Your task to perform on an android device: Clear the shopping cart on costco.com. Add "jbl flip 4" to the cart on costco.com, then select checkout. Image 0: 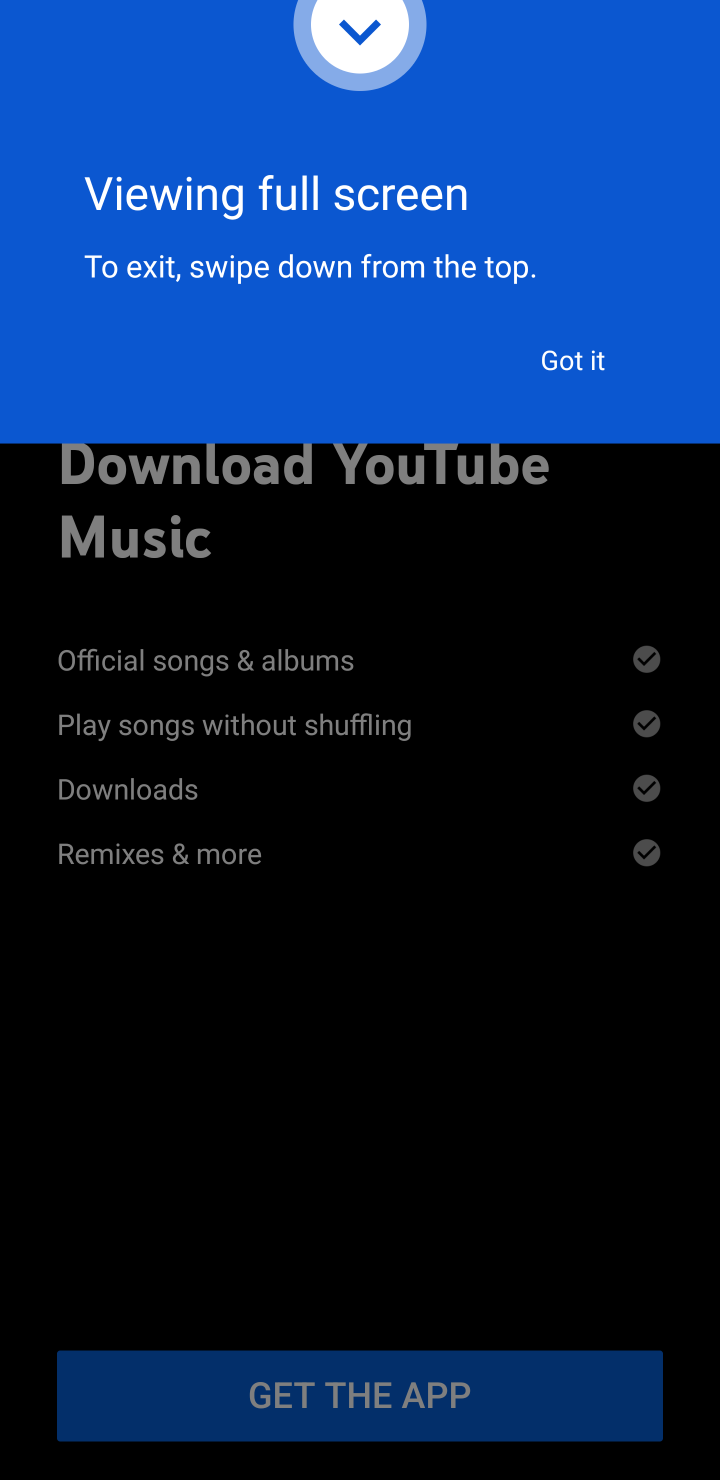
Step 0: click (592, 364)
Your task to perform on an android device: Clear the shopping cart on costco.com. Add "jbl flip 4" to the cart on costco.com, then select checkout. Image 1: 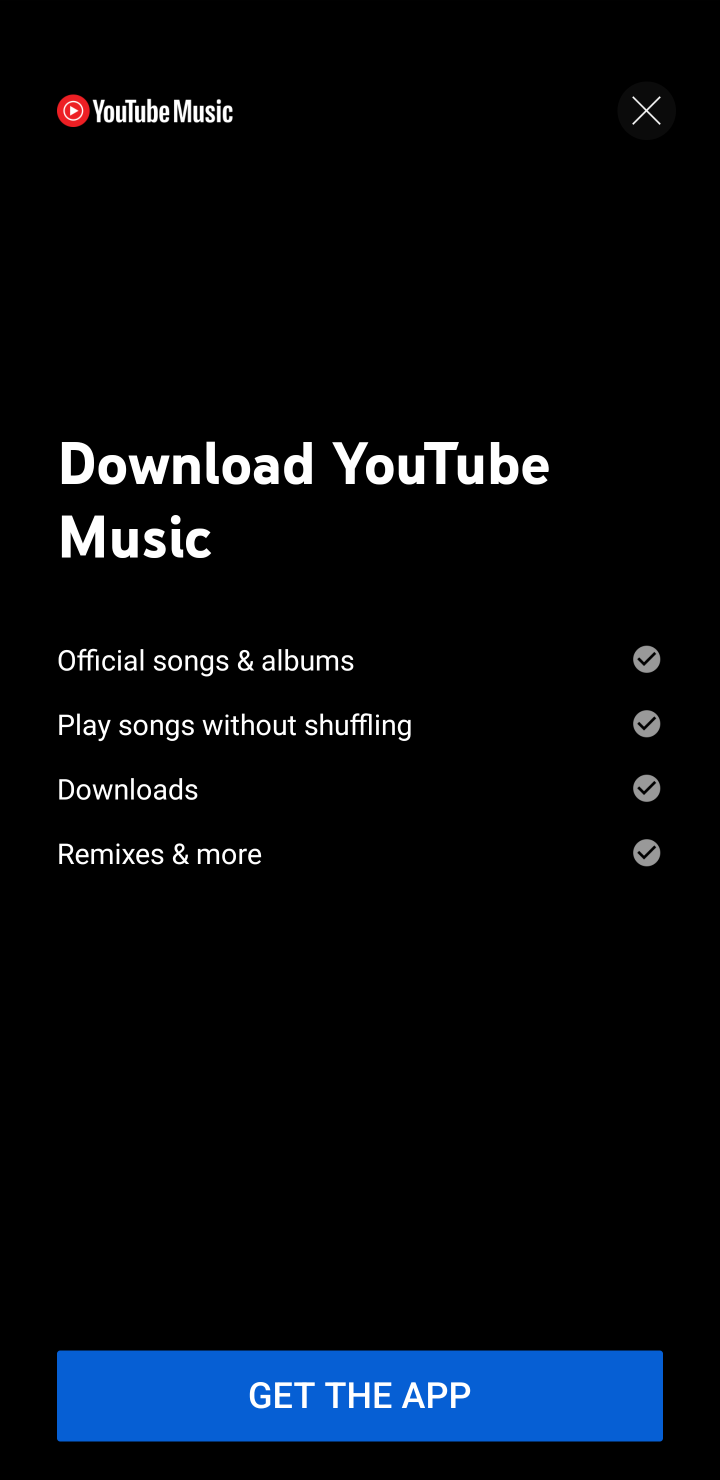
Step 1: press home button
Your task to perform on an android device: Clear the shopping cart on costco.com. Add "jbl flip 4" to the cart on costco.com, then select checkout. Image 2: 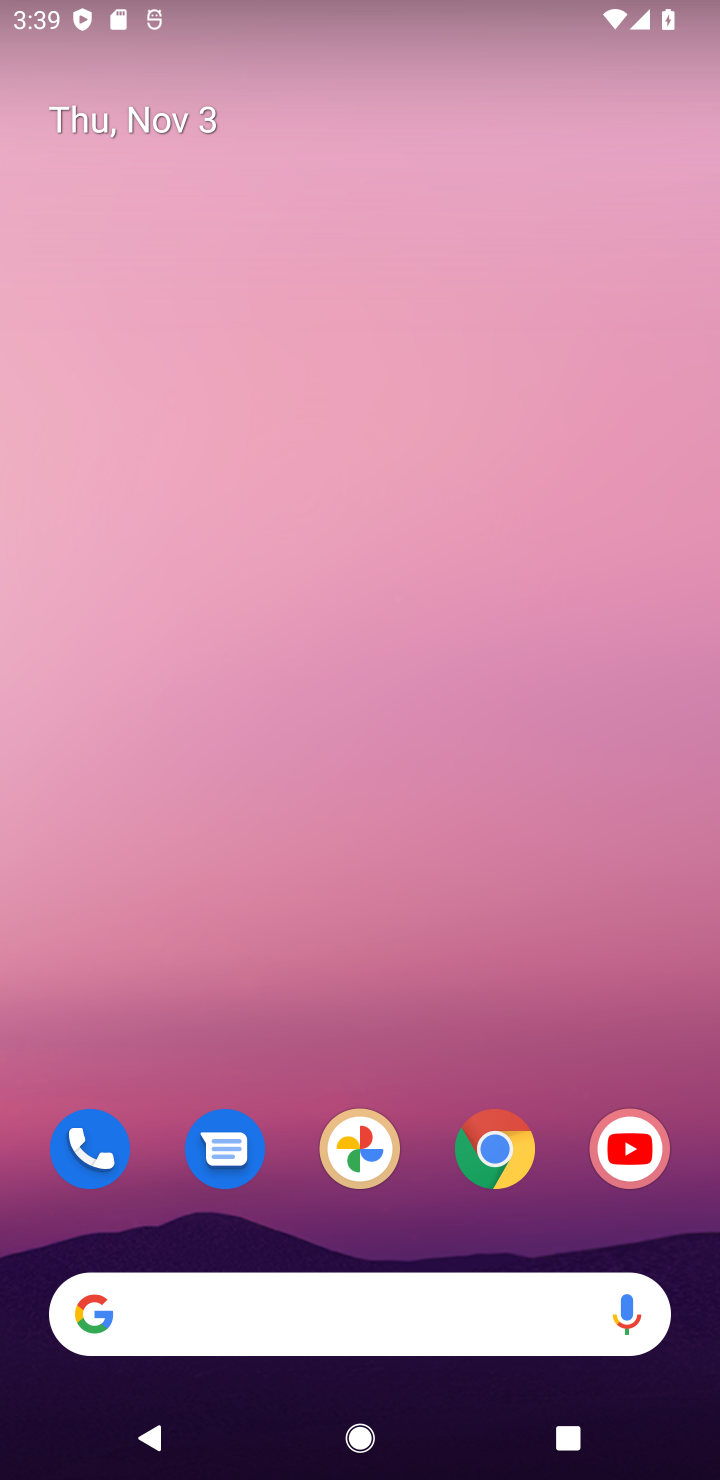
Step 2: click (511, 1143)
Your task to perform on an android device: Clear the shopping cart on costco.com. Add "jbl flip 4" to the cart on costco.com, then select checkout. Image 3: 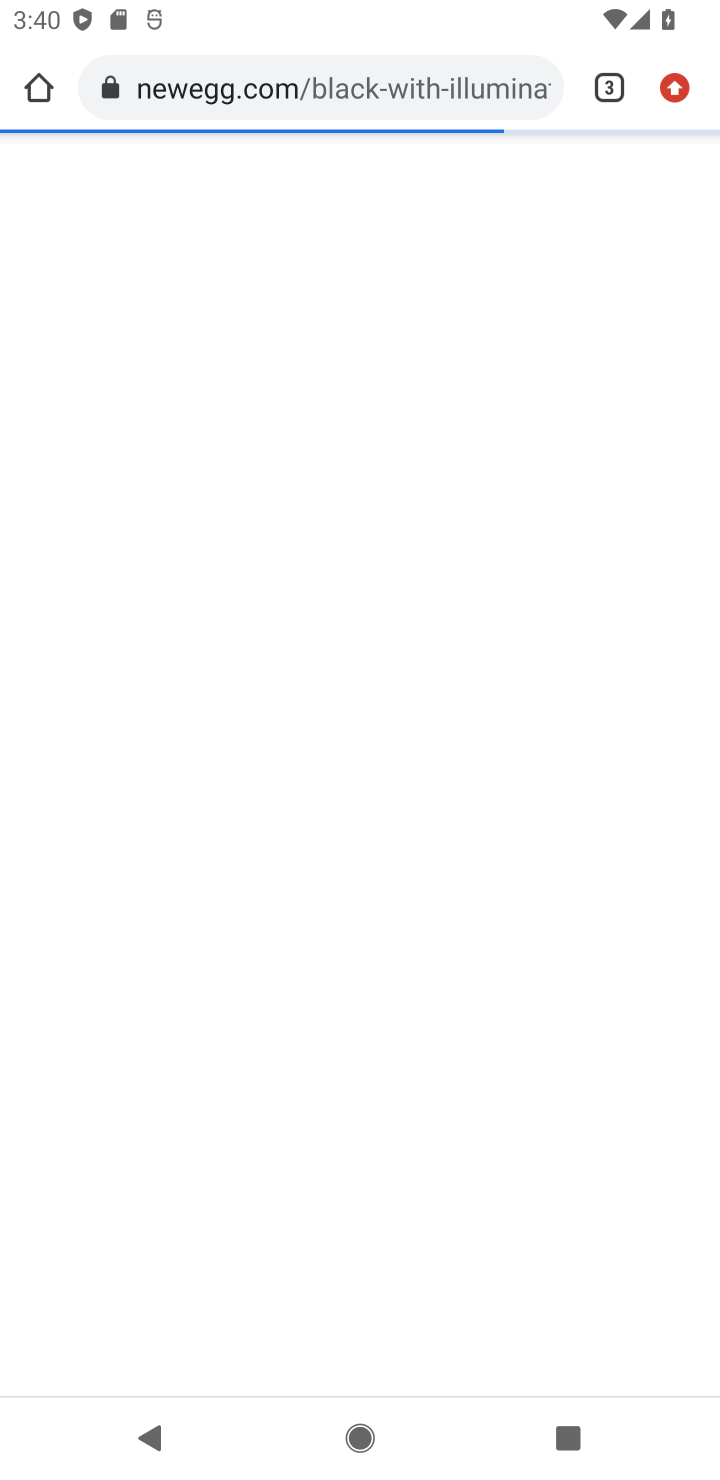
Step 3: click (599, 97)
Your task to perform on an android device: Clear the shopping cart on costco.com. Add "jbl flip 4" to the cart on costco.com, then select checkout. Image 4: 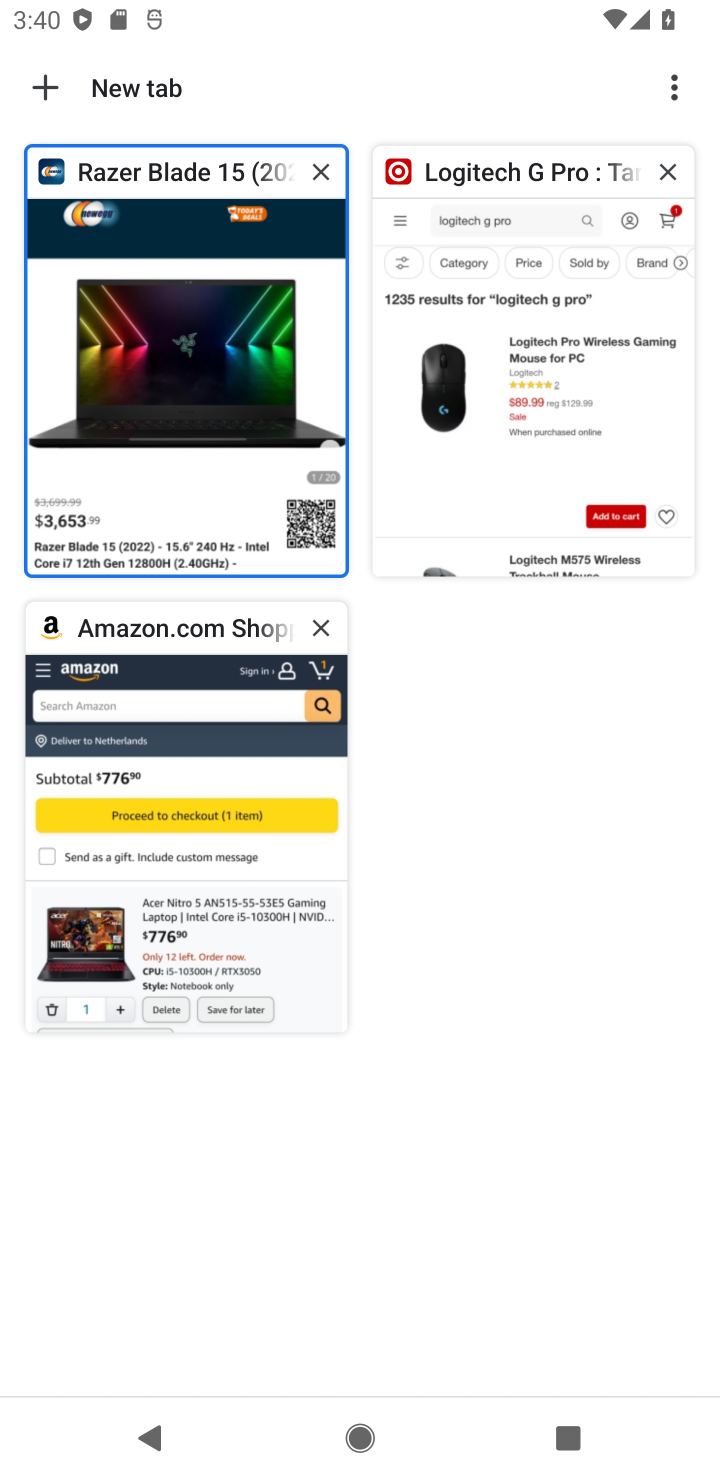
Step 4: click (36, 95)
Your task to perform on an android device: Clear the shopping cart on costco.com. Add "jbl flip 4" to the cart on costco.com, then select checkout. Image 5: 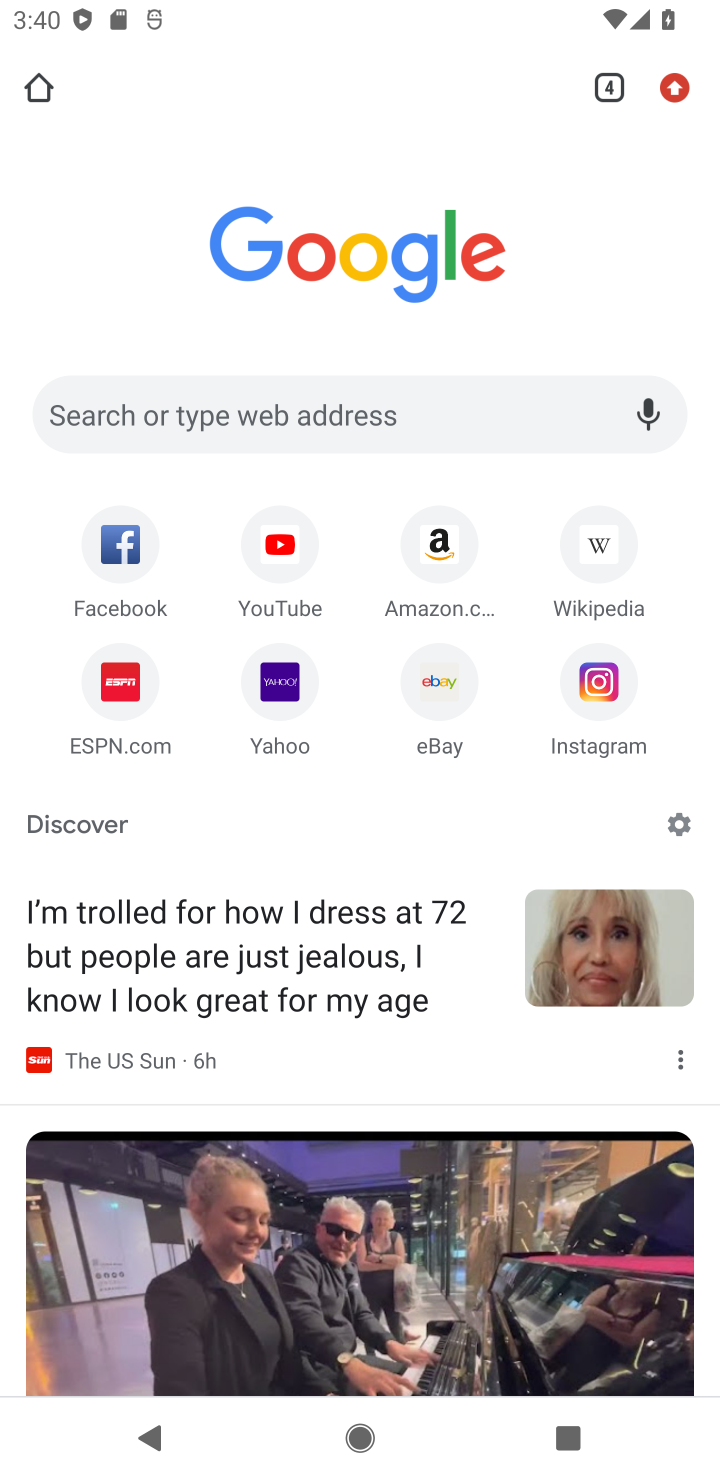
Step 5: click (271, 425)
Your task to perform on an android device: Clear the shopping cart on costco.com. Add "jbl flip 4" to the cart on costco.com, then select checkout. Image 6: 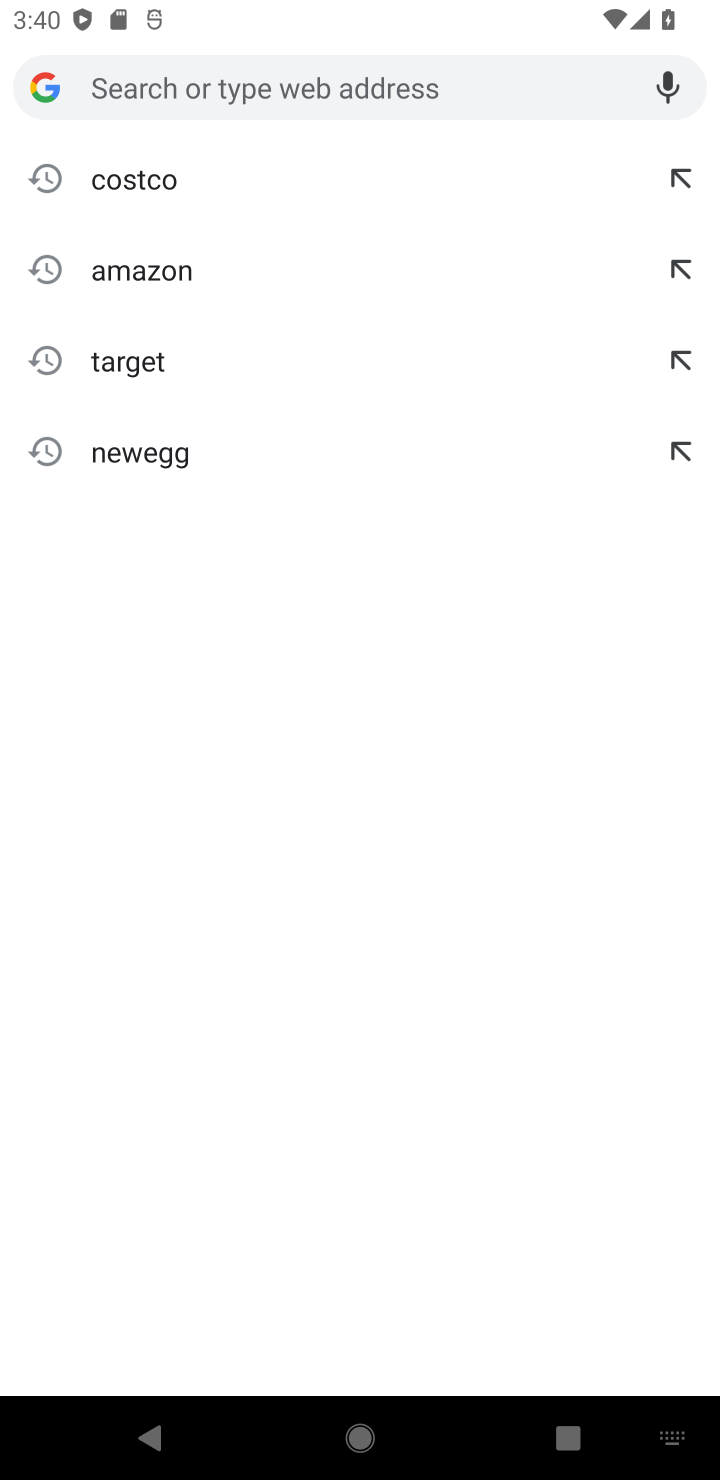
Step 6: type "costco"
Your task to perform on an android device: Clear the shopping cart on costco.com. Add "jbl flip 4" to the cart on costco.com, then select checkout. Image 7: 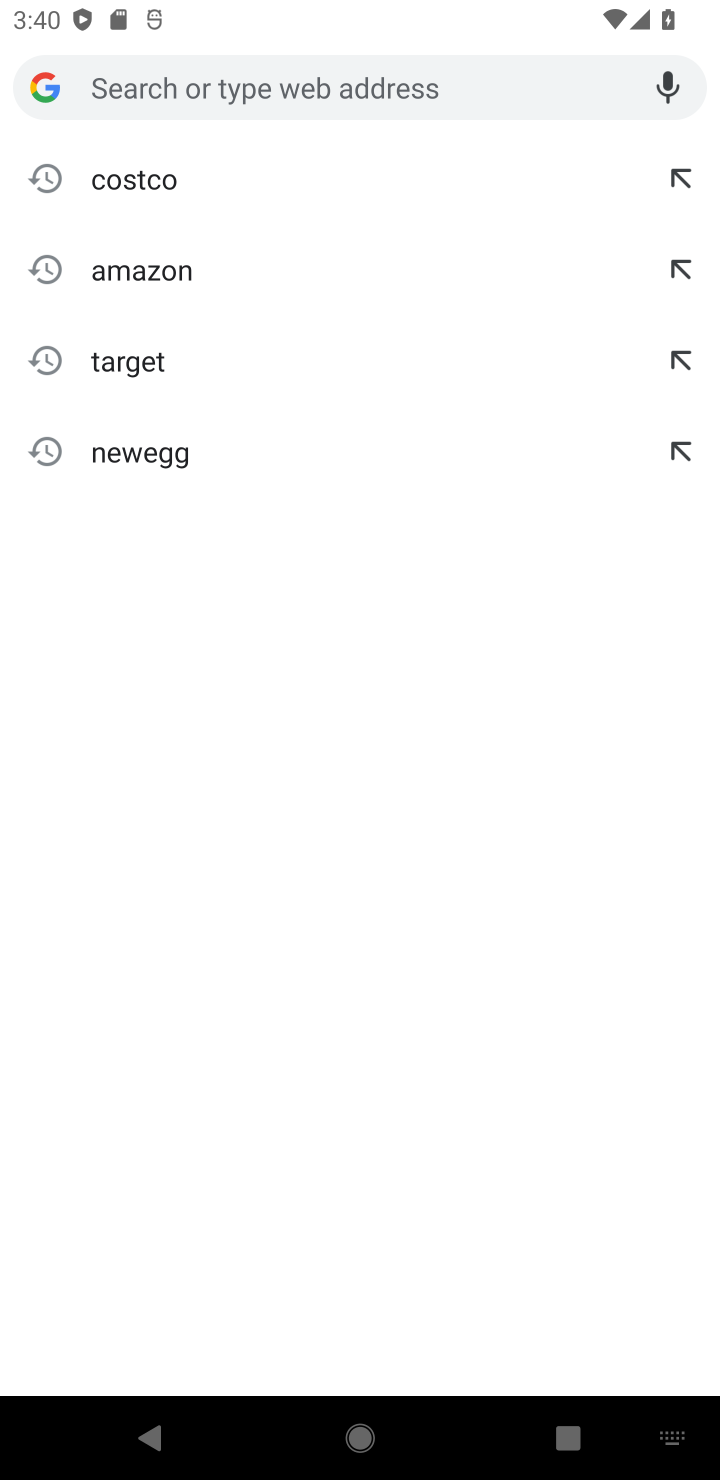
Step 7: click (166, 173)
Your task to perform on an android device: Clear the shopping cart on costco.com. Add "jbl flip 4" to the cart on costco.com, then select checkout. Image 8: 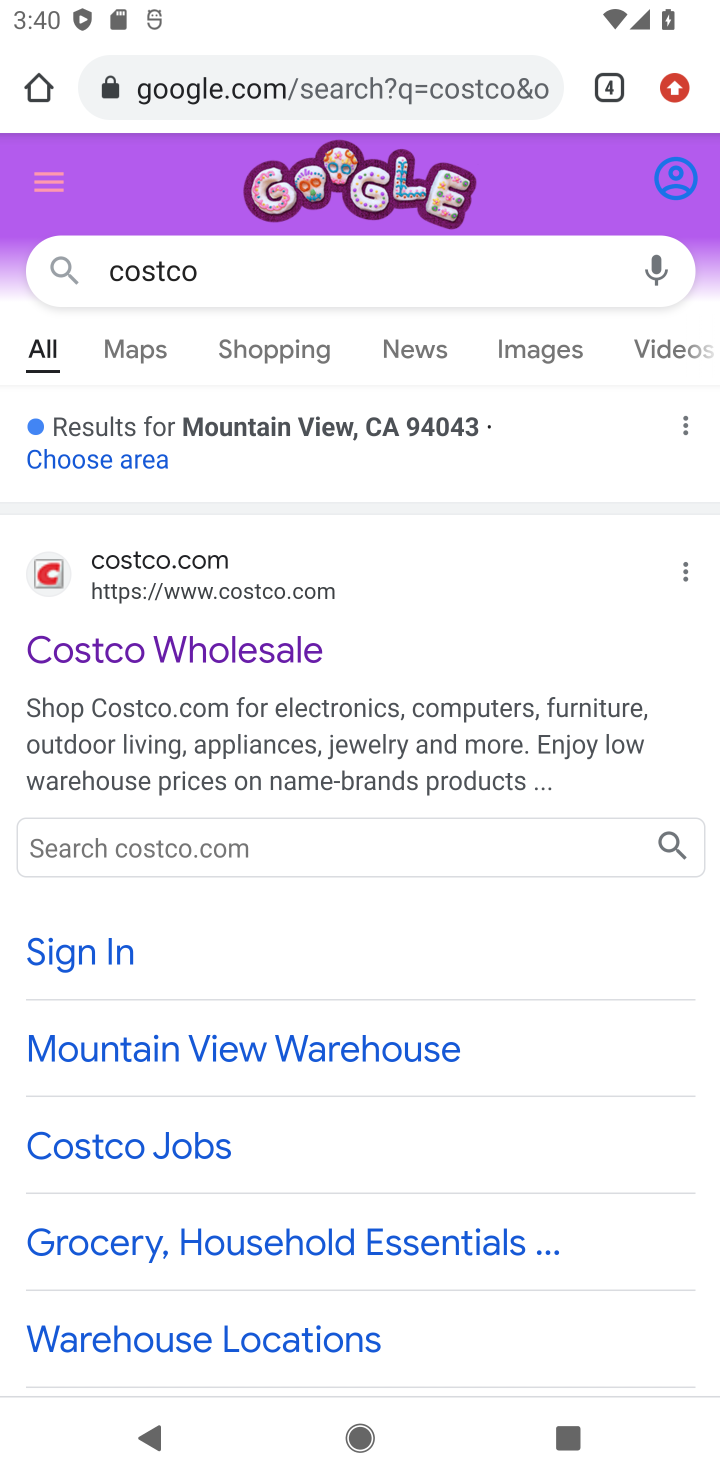
Step 8: drag from (277, 914) to (383, 420)
Your task to perform on an android device: Clear the shopping cart on costco.com. Add "jbl flip 4" to the cart on costco.com, then select checkout. Image 9: 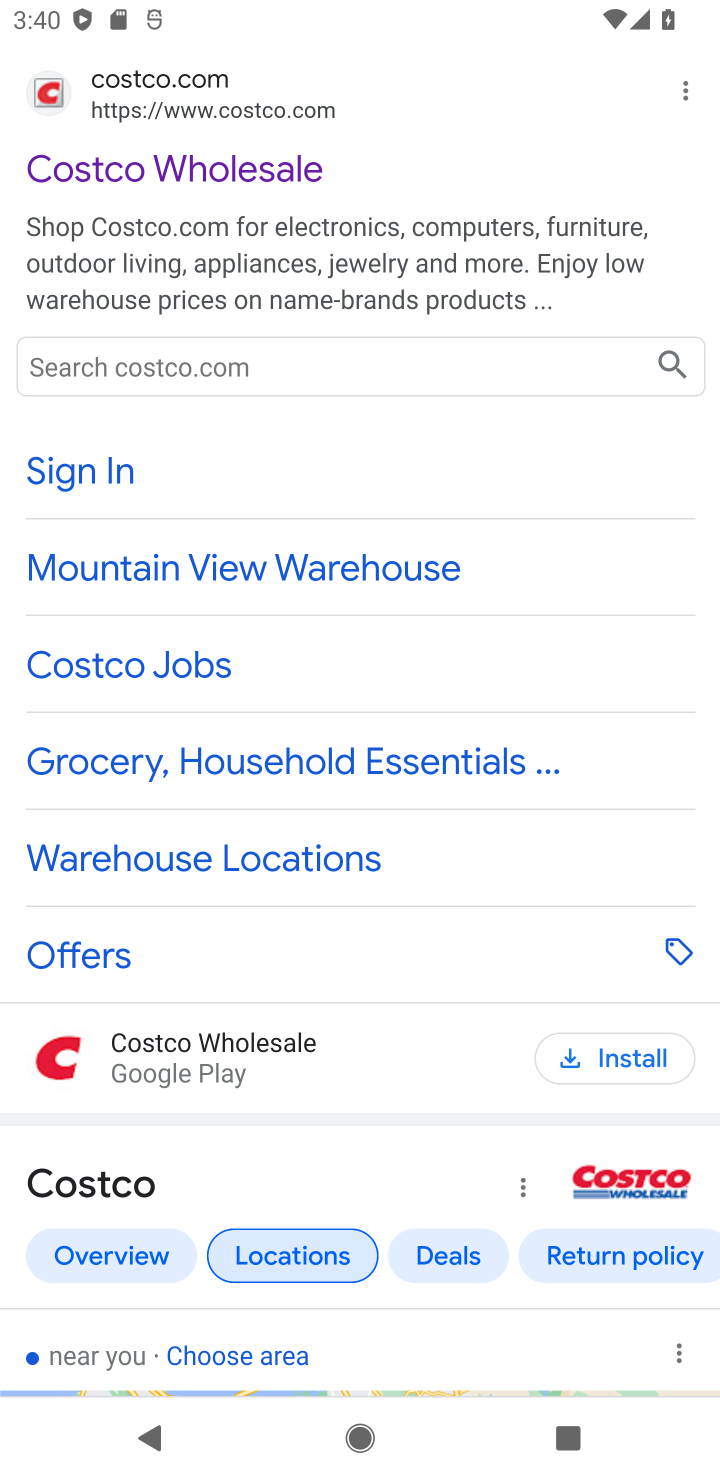
Step 9: drag from (316, 1178) to (468, 305)
Your task to perform on an android device: Clear the shopping cart on costco.com. Add "jbl flip 4" to the cart on costco.com, then select checkout. Image 10: 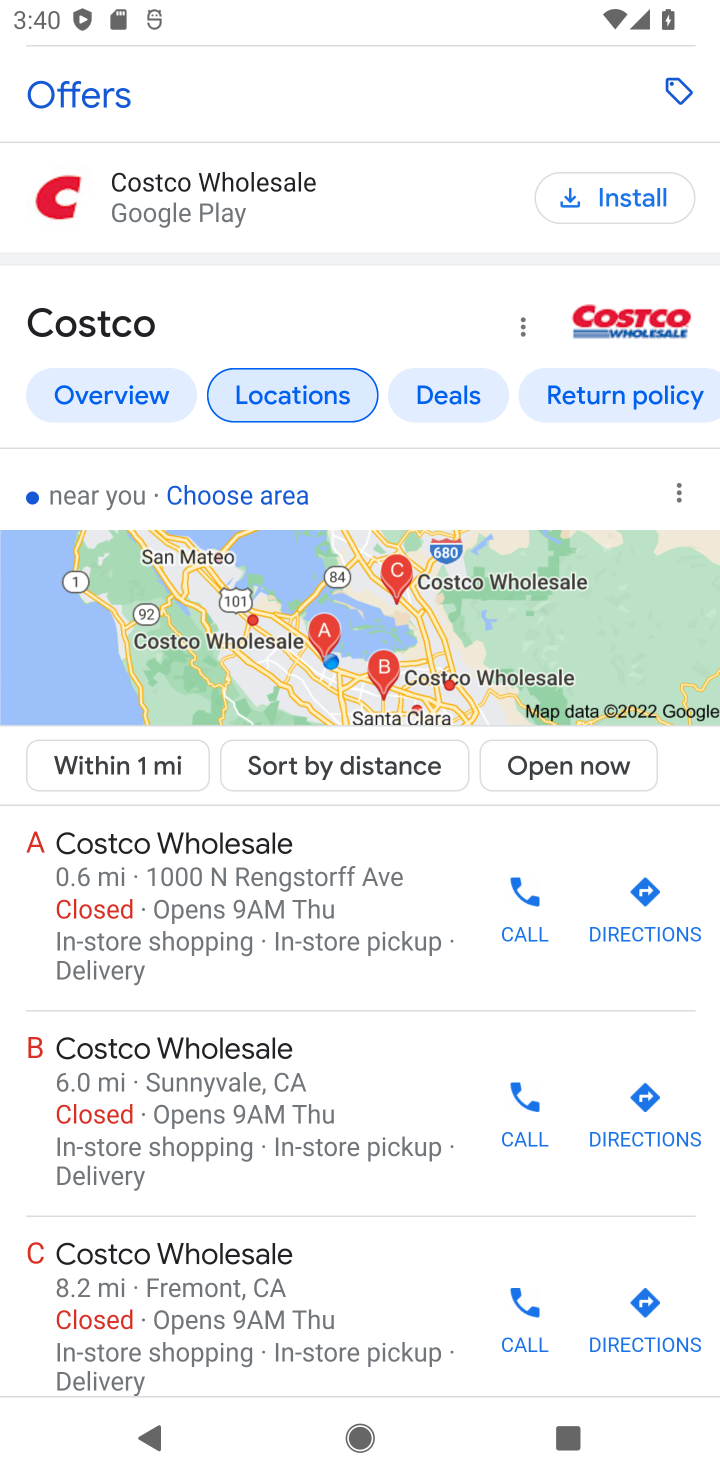
Step 10: drag from (366, 573) to (464, 36)
Your task to perform on an android device: Clear the shopping cart on costco.com. Add "jbl flip 4" to the cart on costco.com, then select checkout. Image 11: 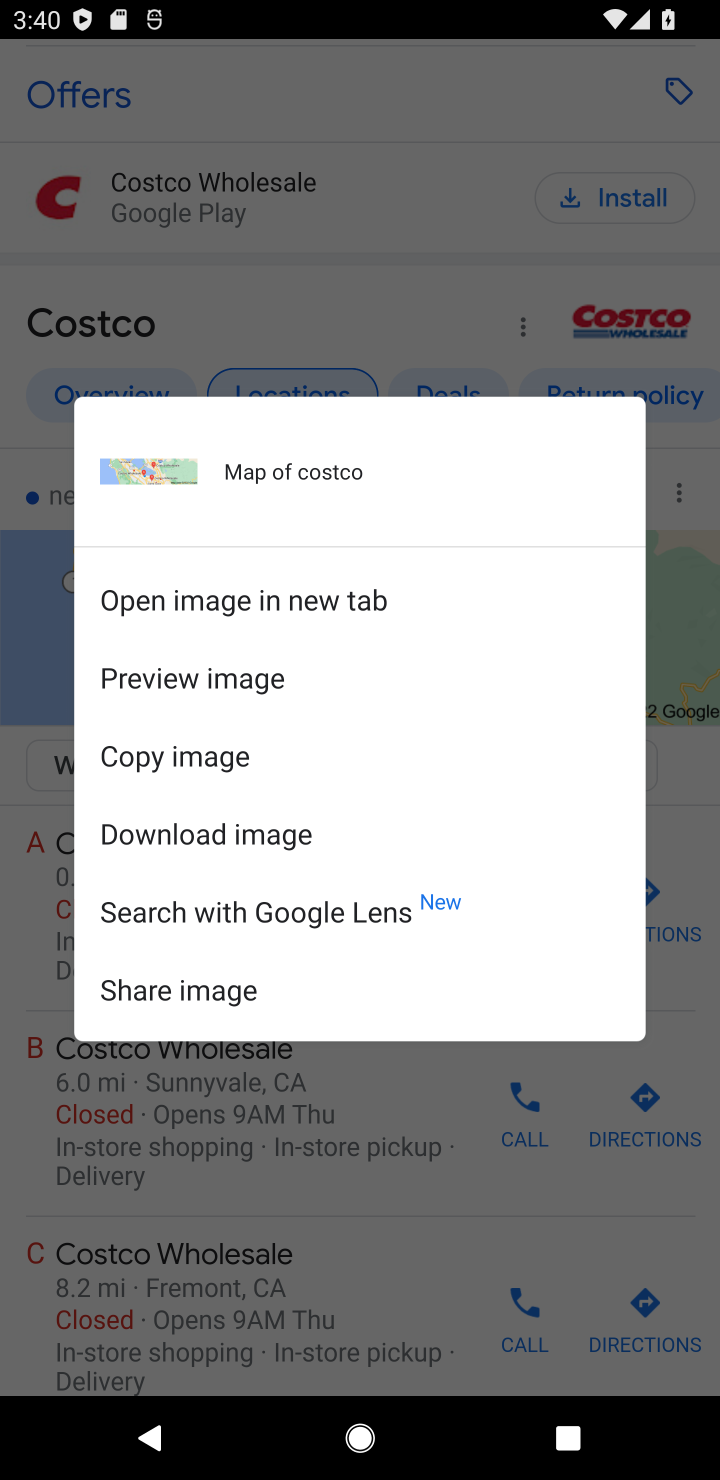
Step 11: click (509, 305)
Your task to perform on an android device: Clear the shopping cart on costco.com. Add "jbl flip 4" to the cart on costco.com, then select checkout. Image 12: 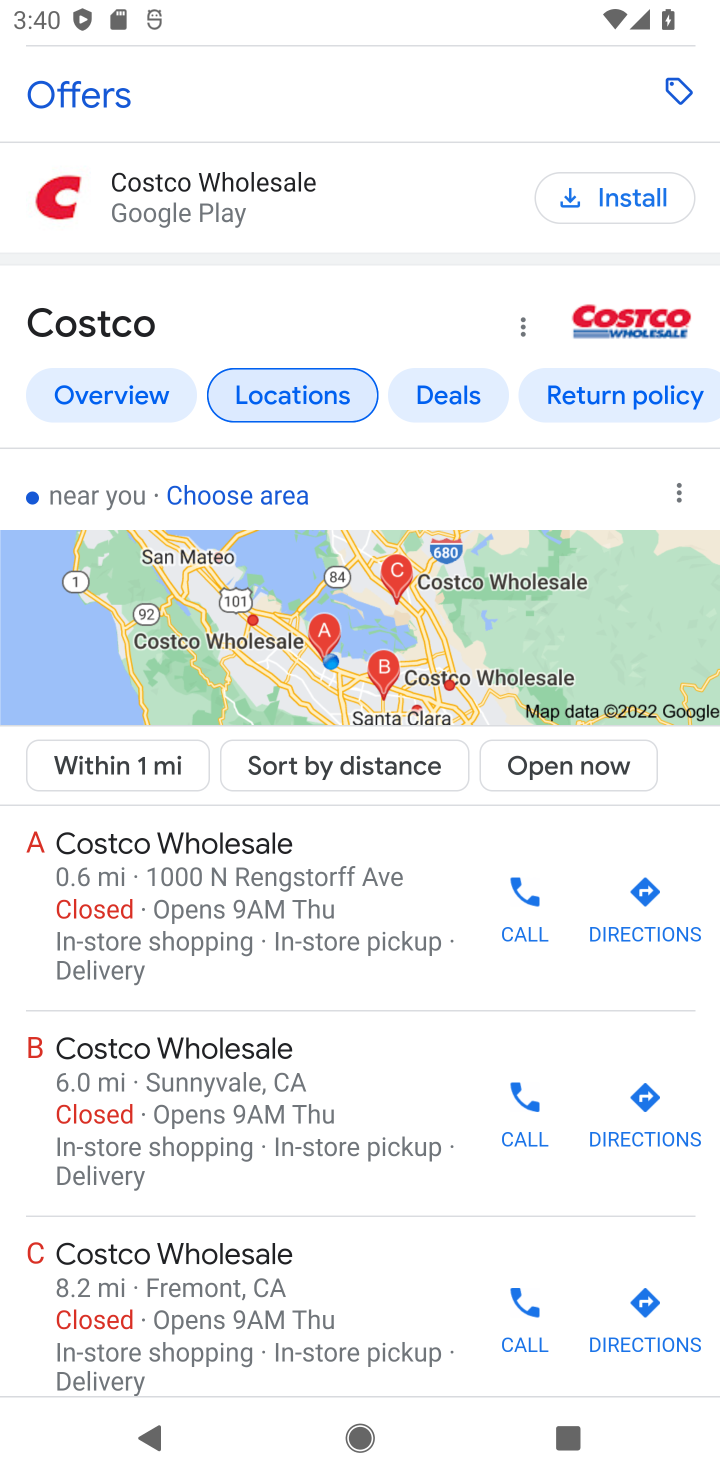
Step 12: drag from (241, 1071) to (405, 250)
Your task to perform on an android device: Clear the shopping cart on costco.com. Add "jbl flip 4" to the cart on costco.com, then select checkout. Image 13: 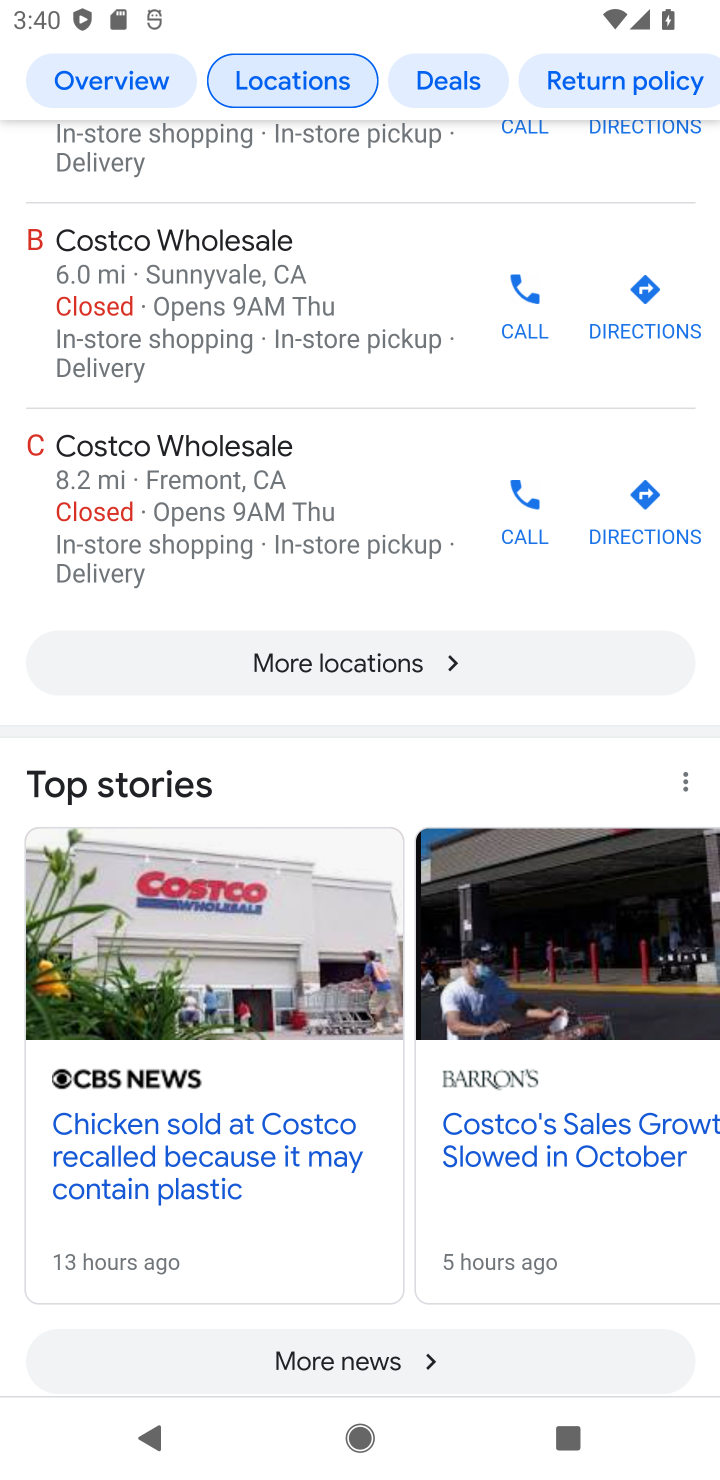
Step 13: drag from (400, 248) to (276, 1476)
Your task to perform on an android device: Clear the shopping cart on costco.com. Add "jbl flip 4" to the cart on costco.com, then select checkout. Image 14: 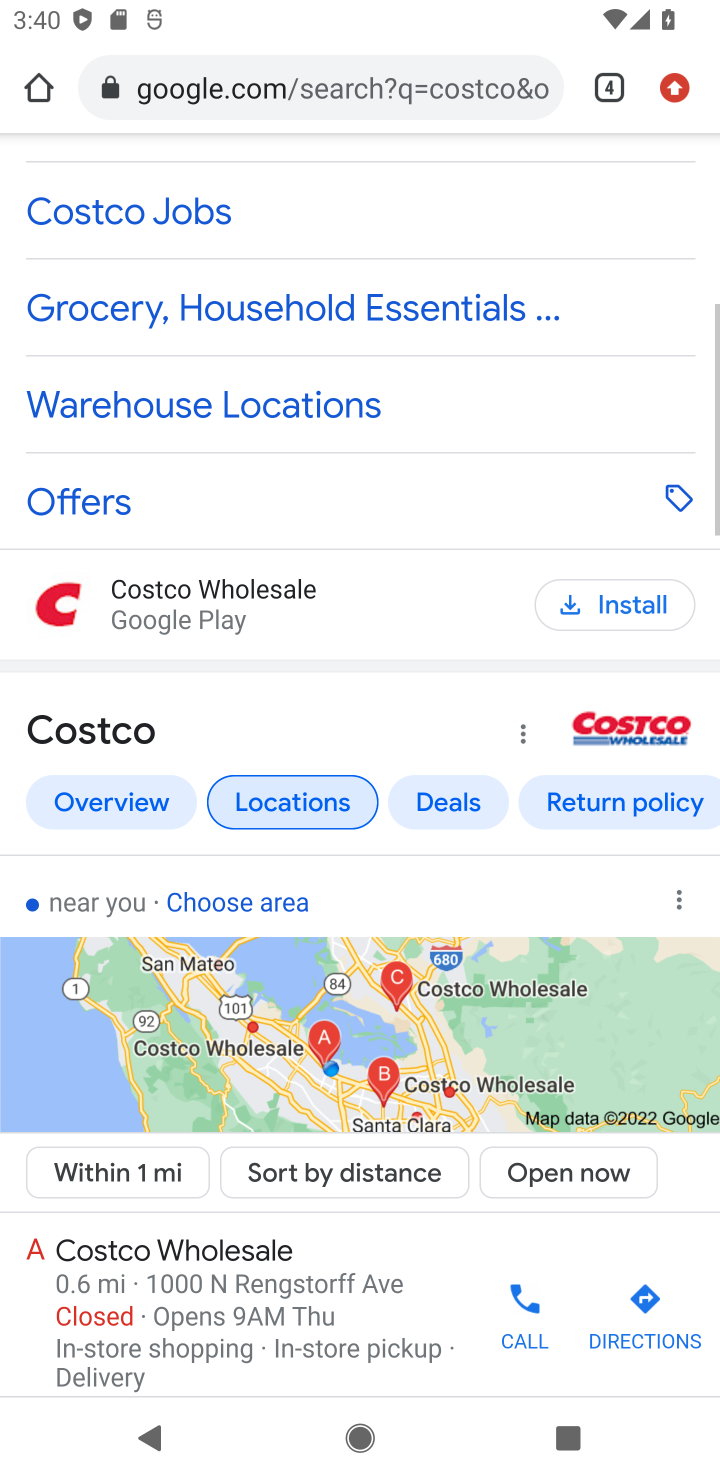
Step 14: drag from (479, 372) to (264, 1311)
Your task to perform on an android device: Clear the shopping cart on costco.com. Add "jbl flip 4" to the cart on costco.com, then select checkout. Image 15: 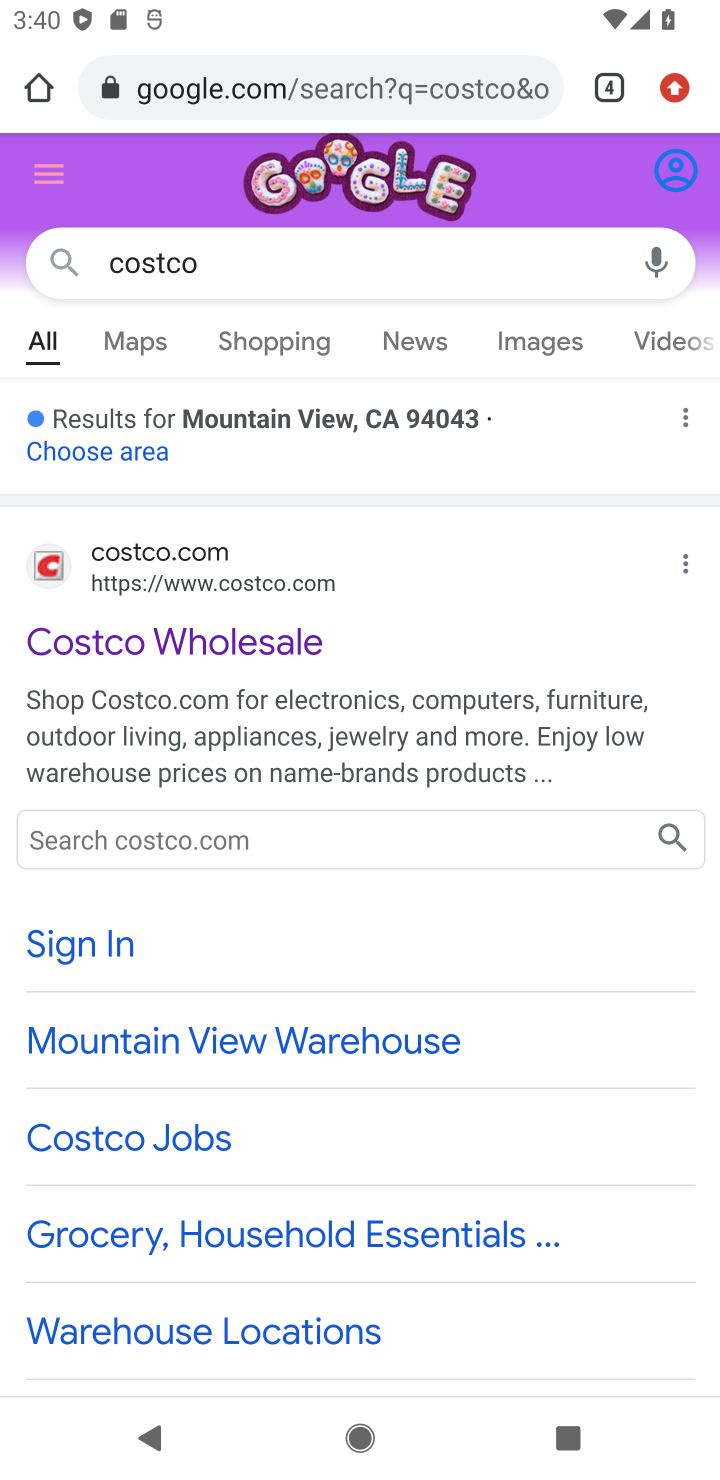
Step 15: click (192, 643)
Your task to perform on an android device: Clear the shopping cart on costco.com. Add "jbl flip 4" to the cart on costco.com, then select checkout. Image 16: 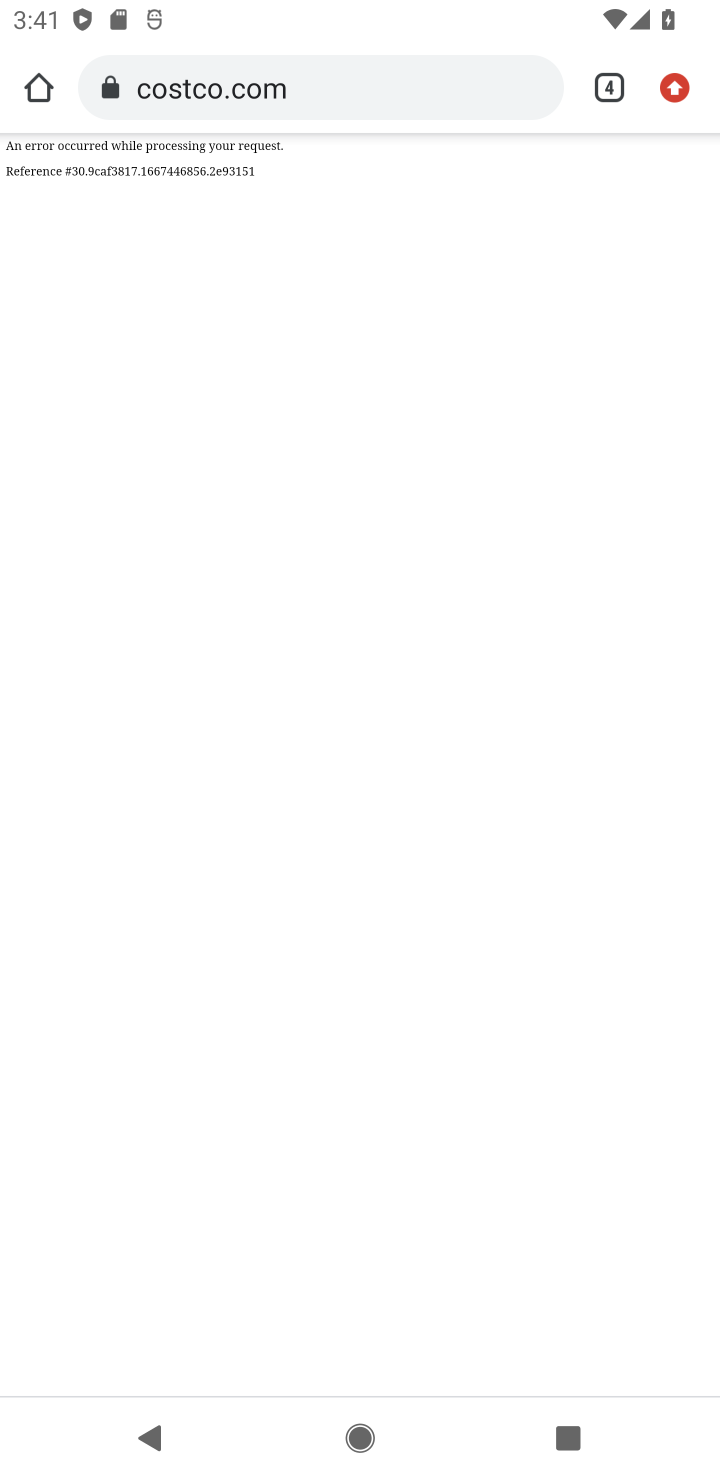
Step 16: task complete